Your task to perform on an android device: What's the weather going to be tomorrow? Image 0: 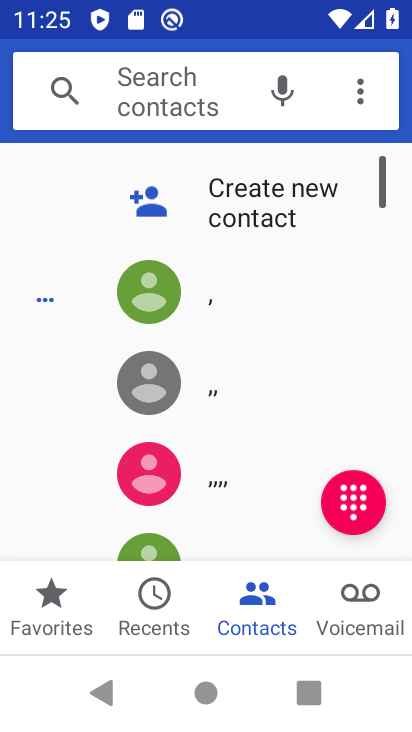
Step 0: press home button
Your task to perform on an android device: What's the weather going to be tomorrow? Image 1: 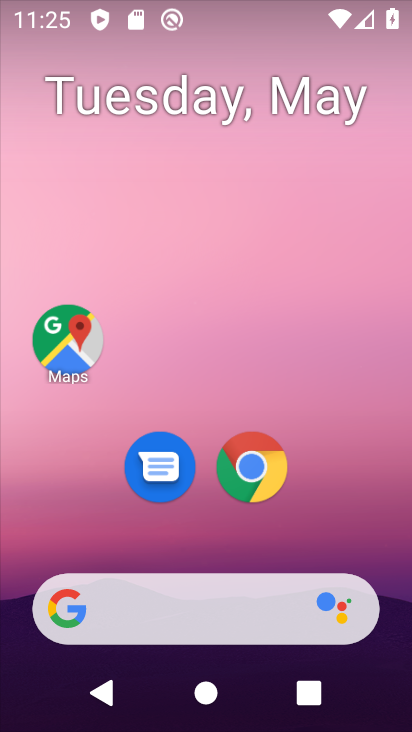
Step 1: click (227, 608)
Your task to perform on an android device: What's the weather going to be tomorrow? Image 2: 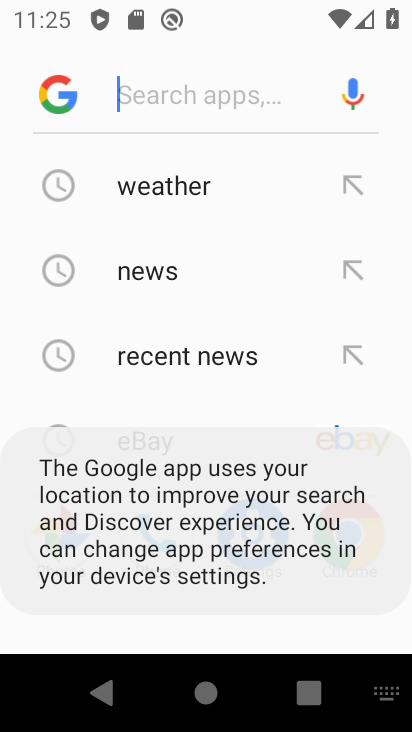
Step 2: click (171, 193)
Your task to perform on an android device: What's the weather going to be tomorrow? Image 3: 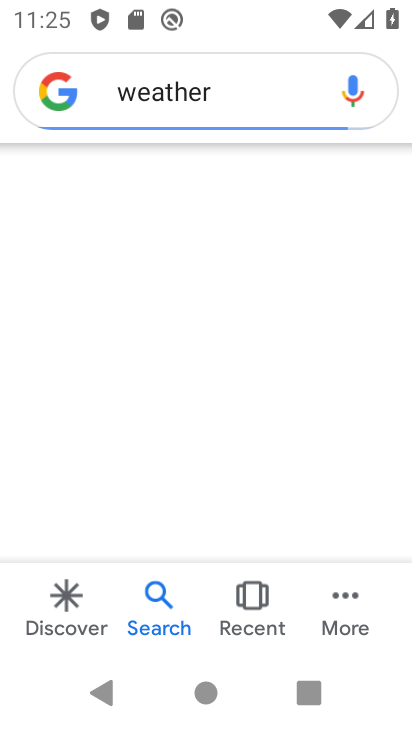
Step 3: task complete